Your task to perform on an android device: set an alarm Image 0: 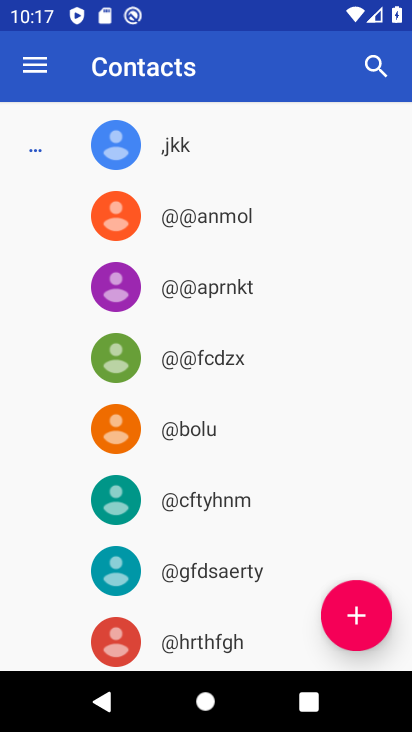
Step 0: press home button
Your task to perform on an android device: set an alarm Image 1: 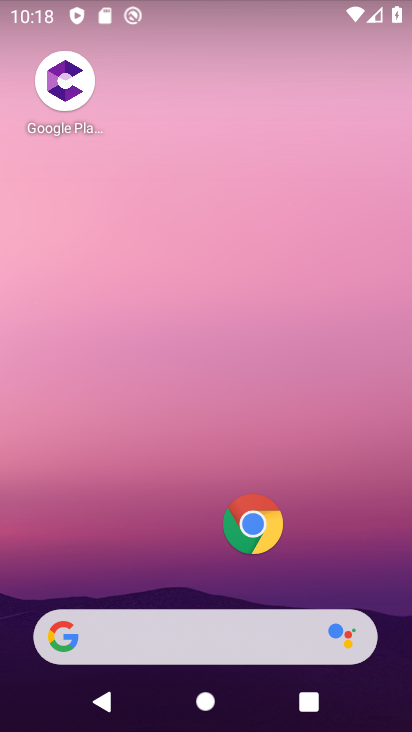
Step 1: drag from (164, 498) to (220, 78)
Your task to perform on an android device: set an alarm Image 2: 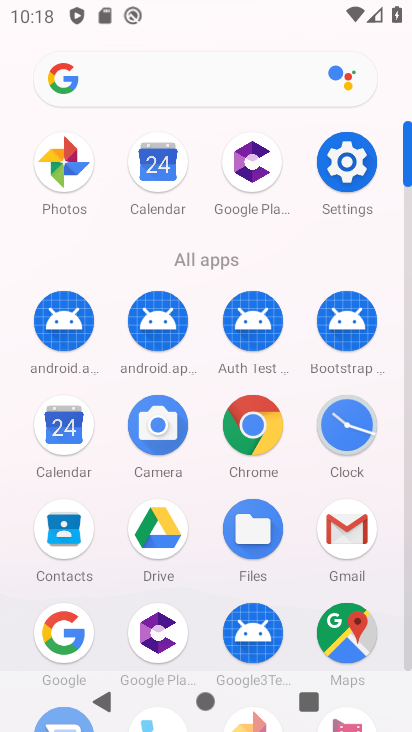
Step 2: click (333, 427)
Your task to perform on an android device: set an alarm Image 3: 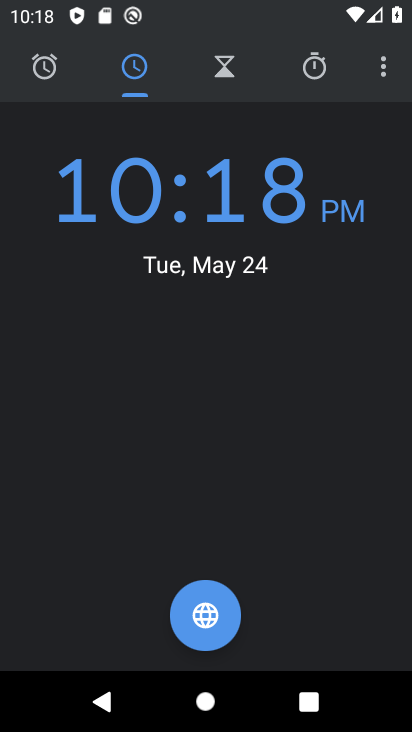
Step 3: click (44, 70)
Your task to perform on an android device: set an alarm Image 4: 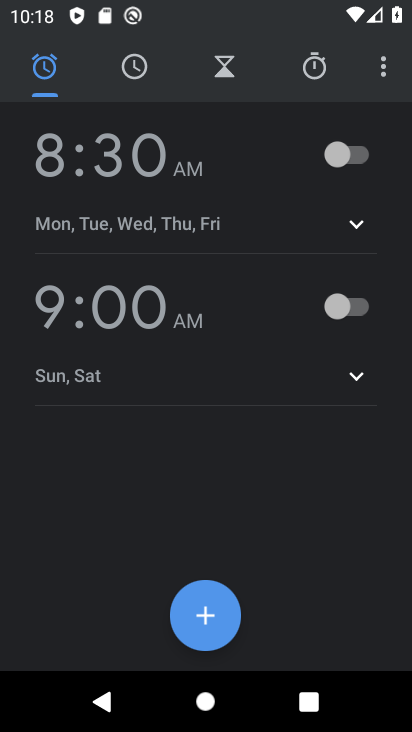
Step 4: click (204, 613)
Your task to perform on an android device: set an alarm Image 5: 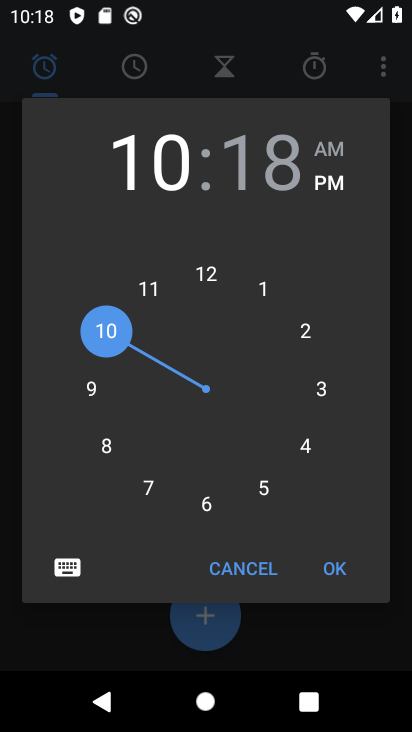
Step 5: click (277, 169)
Your task to perform on an android device: set an alarm Image 6: 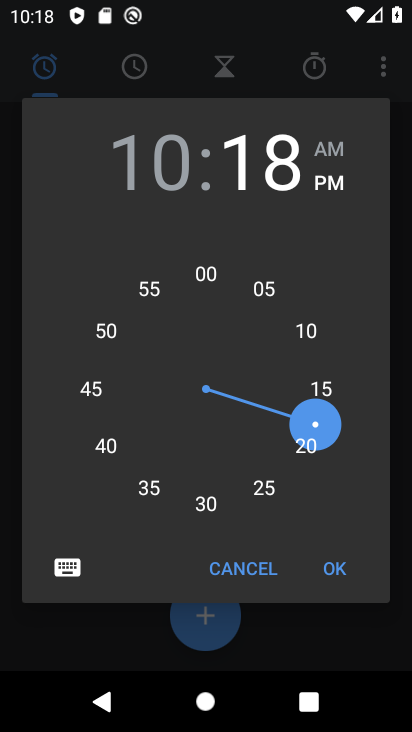
Step 6: click (197, 273)
Your task to perform on an android device: set an alarm Image 7: 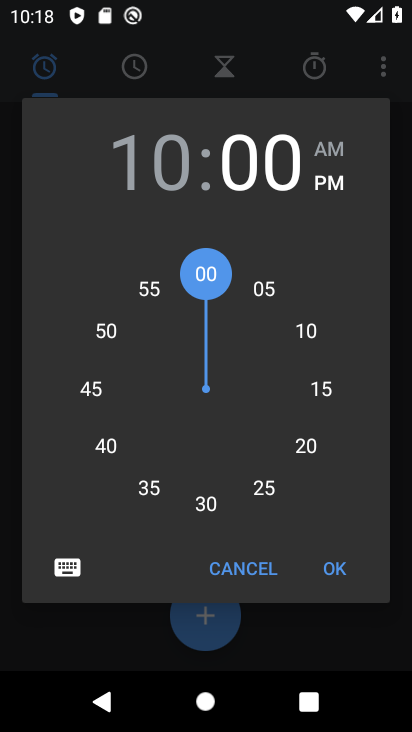
Step 7: click (337, 564)
Your task to perform on an android device: set an alarm Image 8: 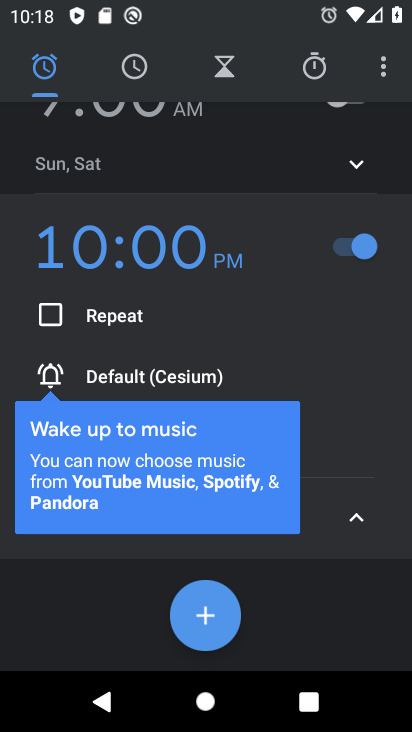
Step 8: task complete